Your task to perform on an android device: see sites visited before in the chrome app Image 0: 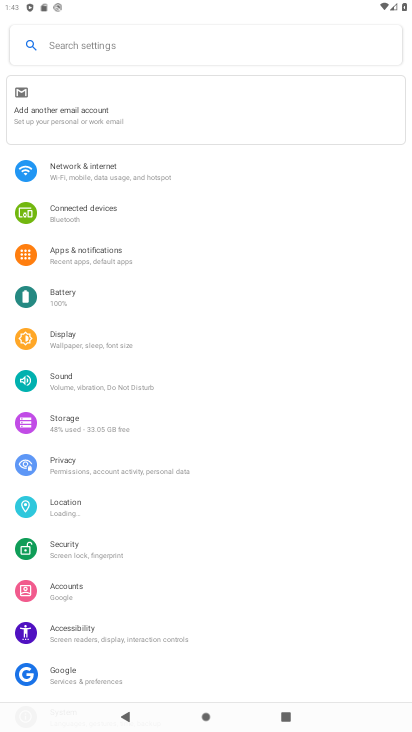
Step 0: press home button
Your task to perform on an android device: see sites visited before in the chrome app Image 1: 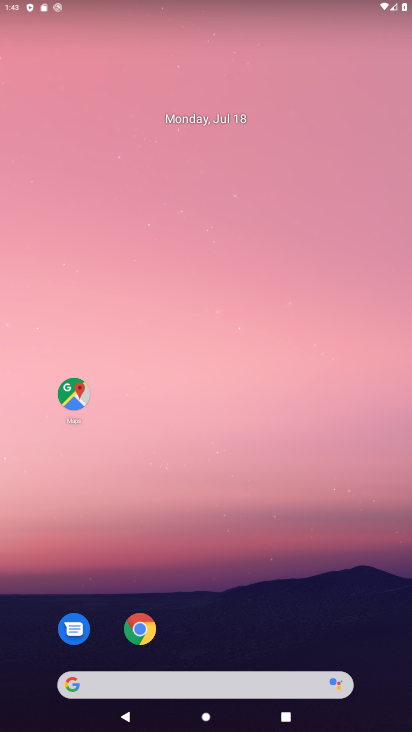
Step 1: click (154, 623)
Your task to perform on an android device: see sites visited before in the chrome app Image 2: 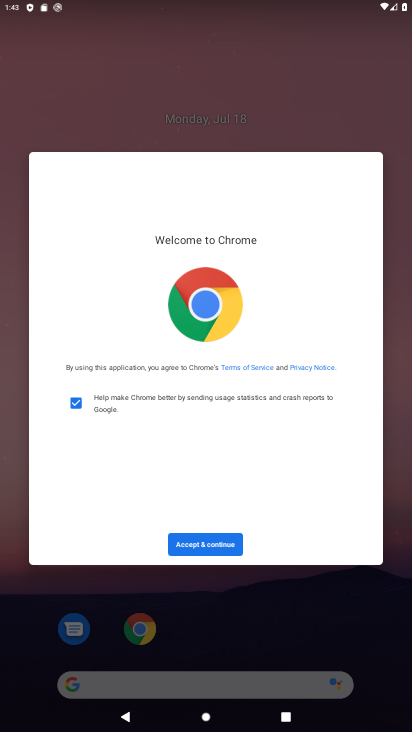
Step 2: click (221, 545)
Your task to perform on an android device: see sites visited before in the chrome app Image 3: 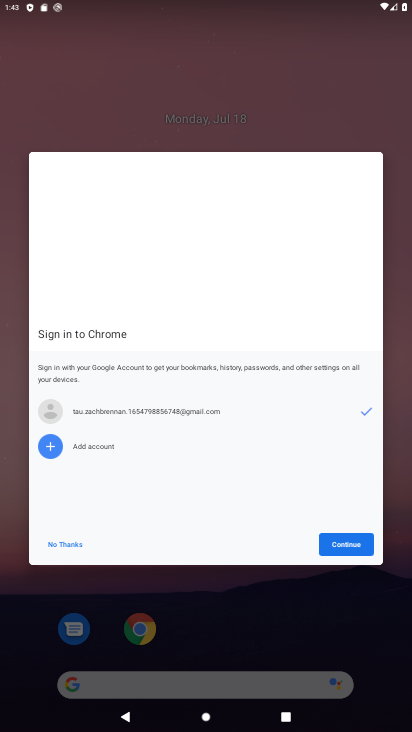
Step 3: click (361, 530)
Your task to perform on an android device: see sites visited before in the chrome app Image 4: 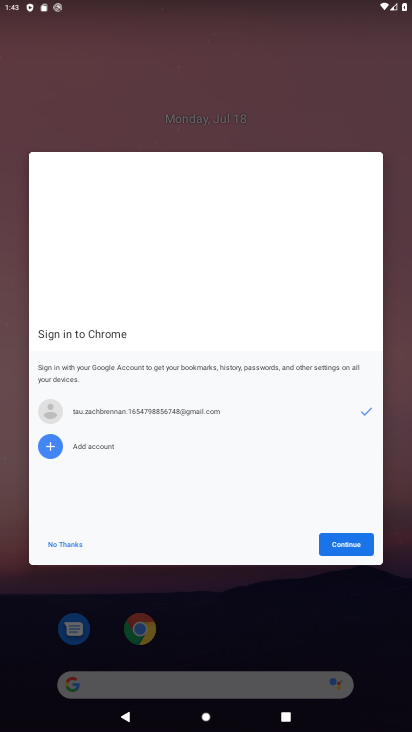
Step 4: click (365, 543)
Your task to perform on an android device: see sites visited before in the chrome app Image 5: 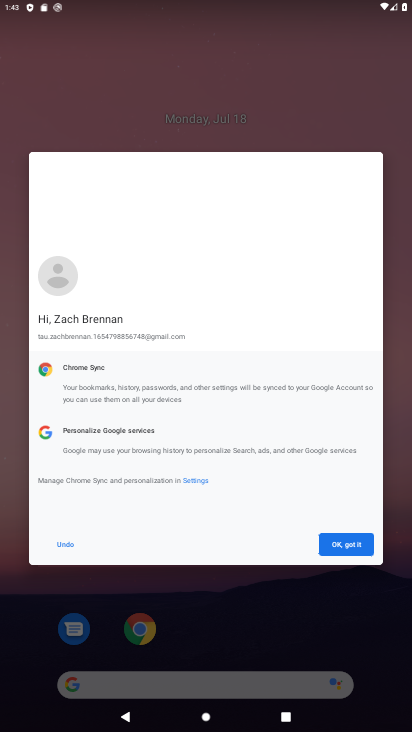
Step 5: click (355, 545)
Your task to perform on an android device: see sites visited before in the chrome app Image 6: 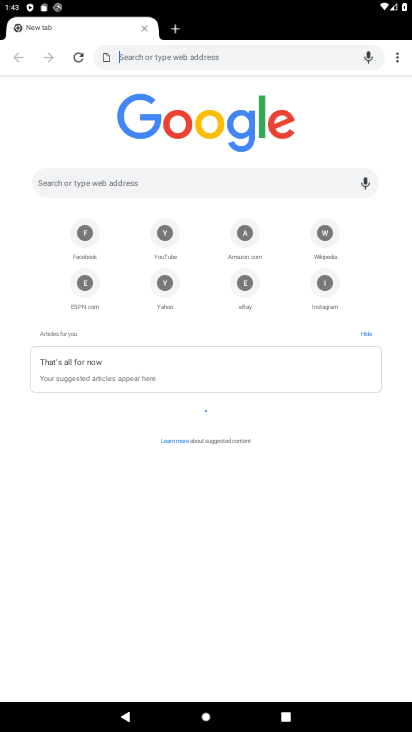
Step 6: click (394, 62)
Your task to perform on an android device: see sites visited before in the chrome app Image 7: 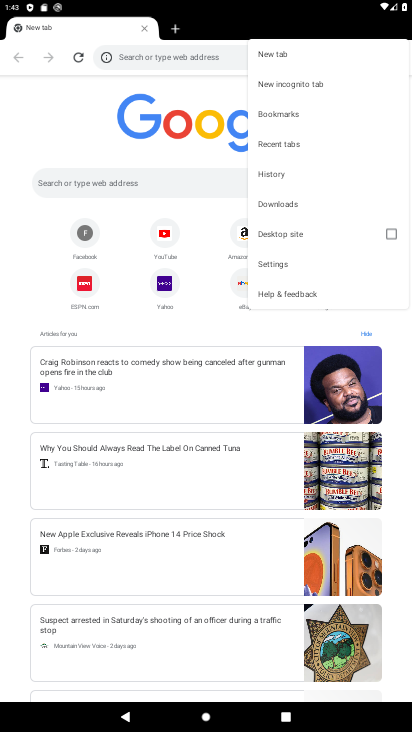
Step 7: click (319, 140)
Your task to perform on an android device: see sites visited before in the chrome app Image 8: 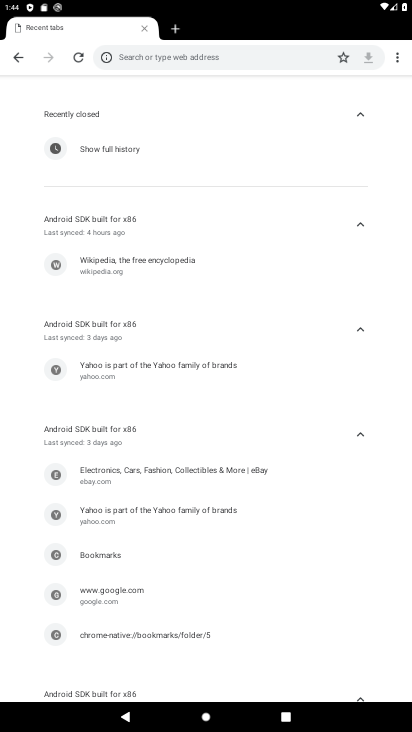
Step 8: task complete